Your task to perform on an android device: Go to settings Image 0: 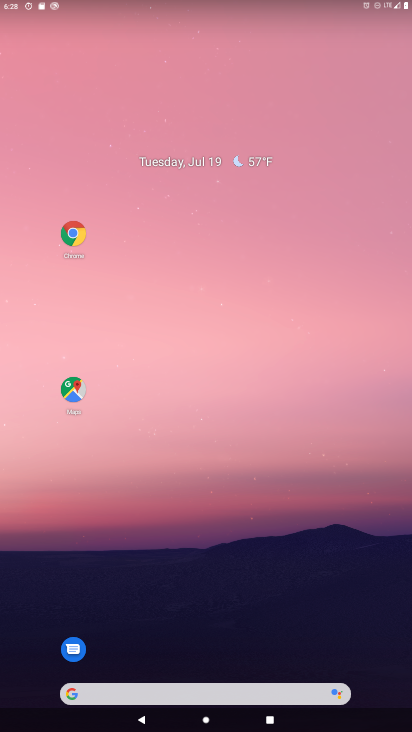
Step 0: drag from (200, 522) to (196, 243)
Your task to perform on an android device: Go to settings Image 1: 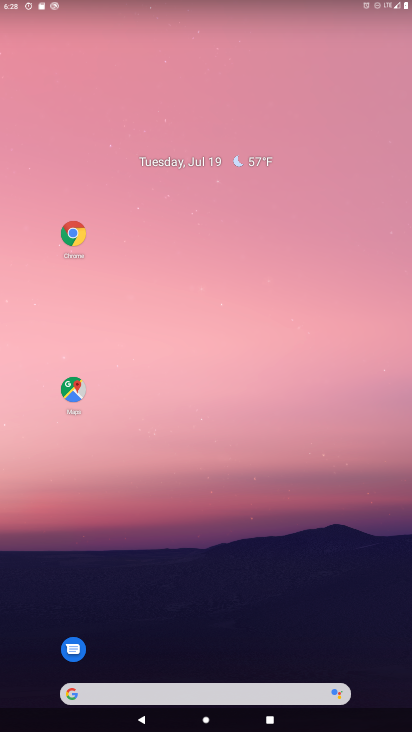
Step 1: drag from (193, 595) to (180, 70)
Your task to perform on an android device: Go to settings Image 2: 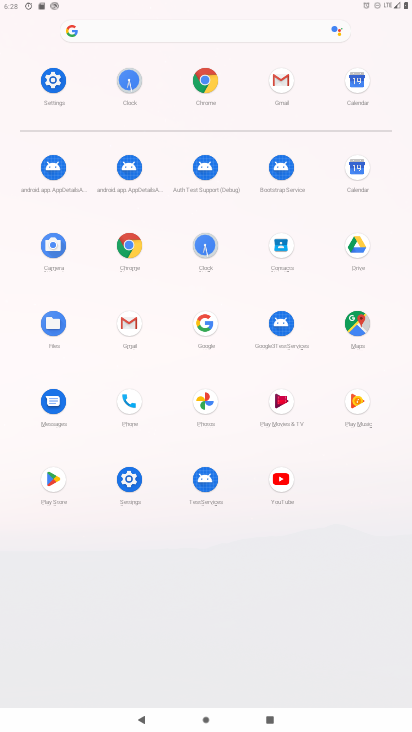
Step 2: click (59, 80)
Your task to perform on an android device: Go to settings Image 3: 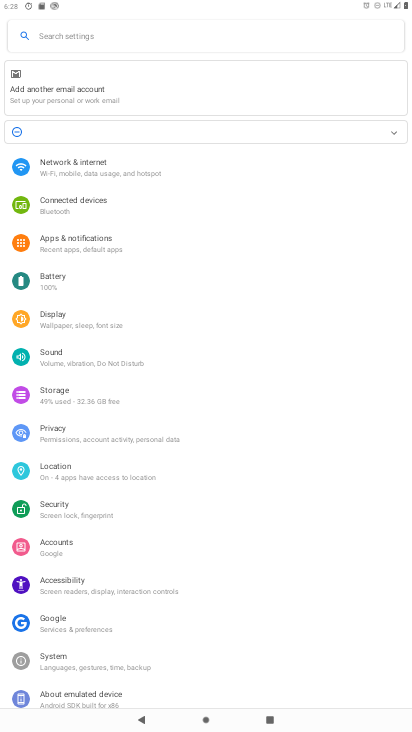
Step 3: task complete